Your task to perform on an android device: Open the phone app and click the voicemail tab. Image 0: 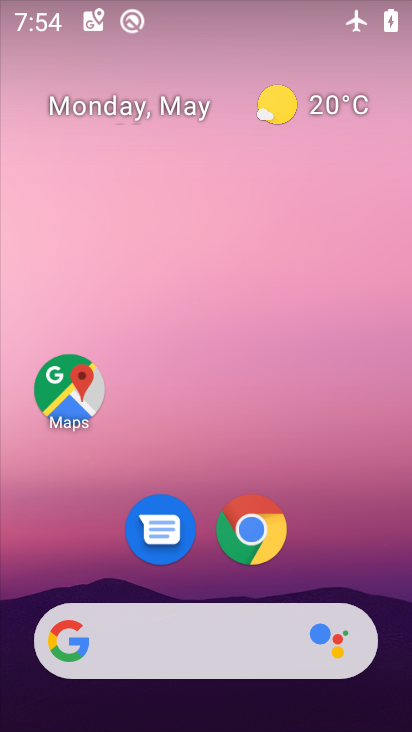
Step 0: drag from (74, 602) to (340, 161)
Your task to perform on an android device: Open the phone app and click the voicemail tab. Image 1: 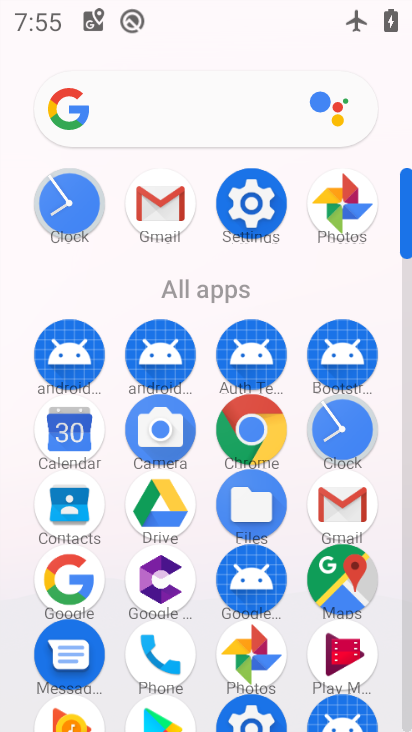
Step 1: click (168, 656)
Your task to perform on an android device: Open the phone app and click the voicemail tab. Image 2: 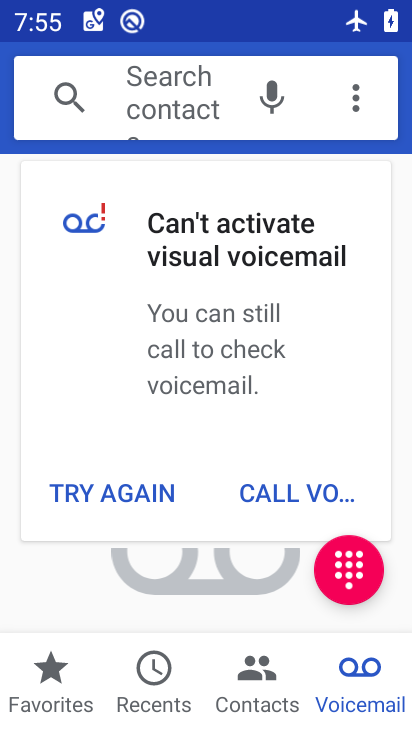
Step 2: click (358, 677)
Your task to perform on an android device: Open the phone app and click the voicemail tab. Image 3: 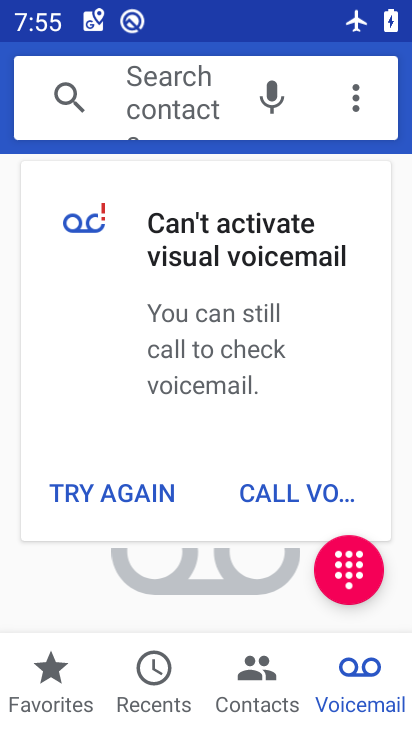
Step 3: task complete